Your task to perform on an android device: turn on javascript in the chrome app Image 0: 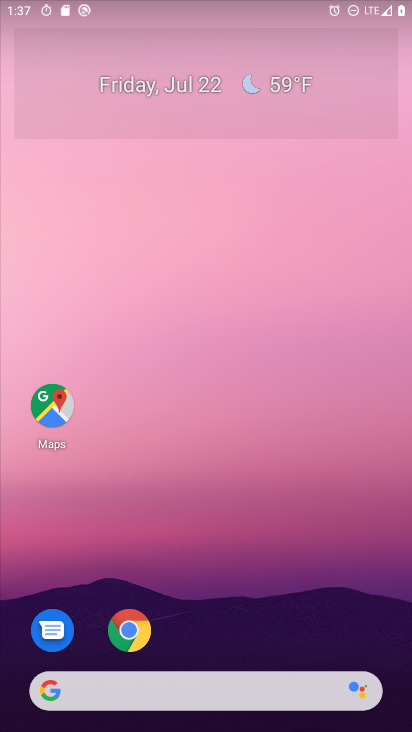
Step 0: press home button
Your task to perform on an android device: turn on javascript in the chrome app Image 1: 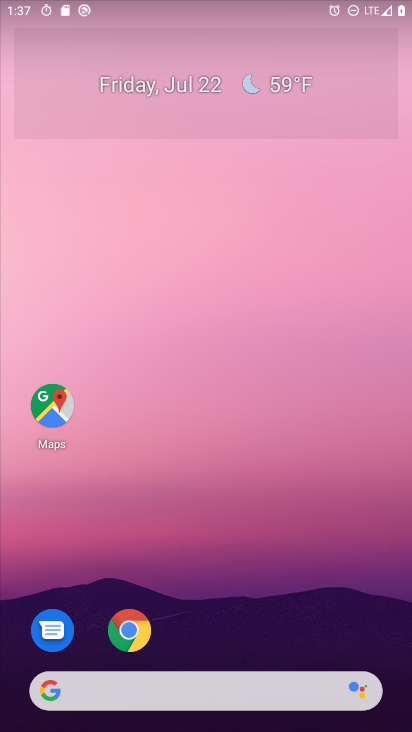
Step 1: drag from (230, 600) to (245, 13)
Your task to perform on an android device: turn on javascript in the chrome app Image 2: 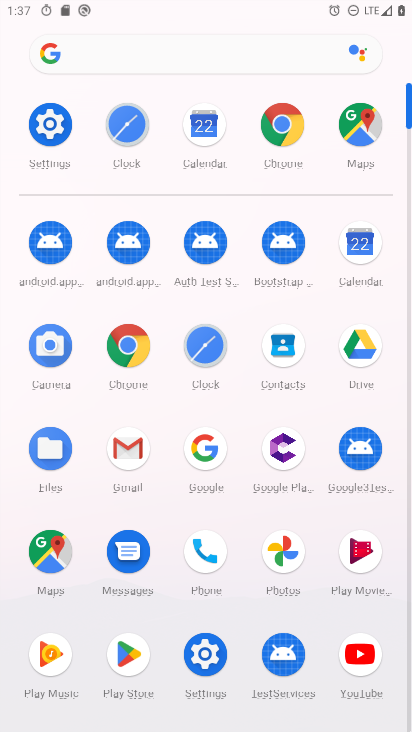
Step 2: click (288, 130)
Your task to perform on an android device: turn on javascript in the chrome app Image 3: 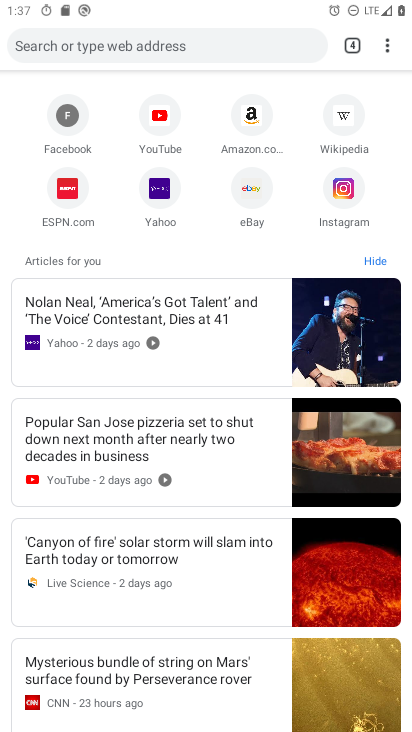
Step 3: drag from (391, 41) to (206, 431)
Your task to perform on an android device: turn on javascript in the chrome app Image 4: 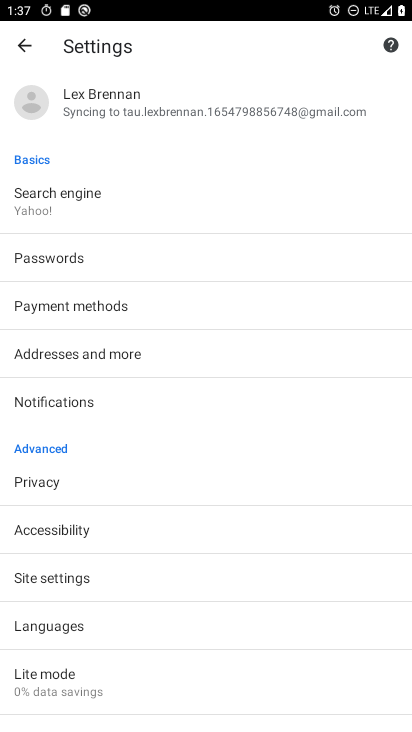
Step 4: click (51, 580)
Your task to perform on an android device: turn on javascript in the chrome app Image 5: 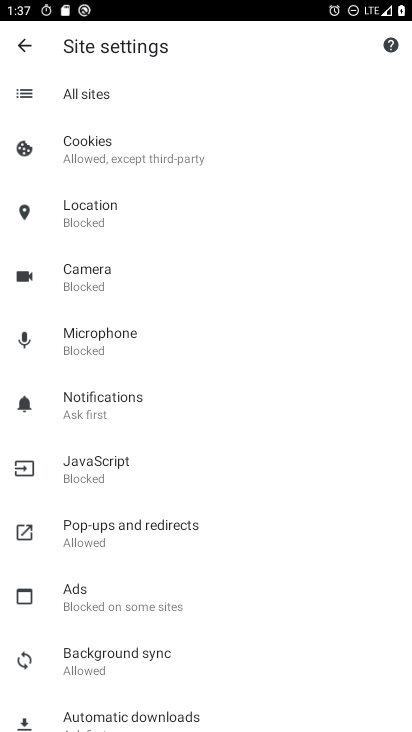
Step 5: click (86, 477)
Your task to perform on an android device: turn on javascript in the chrome app Image 6: 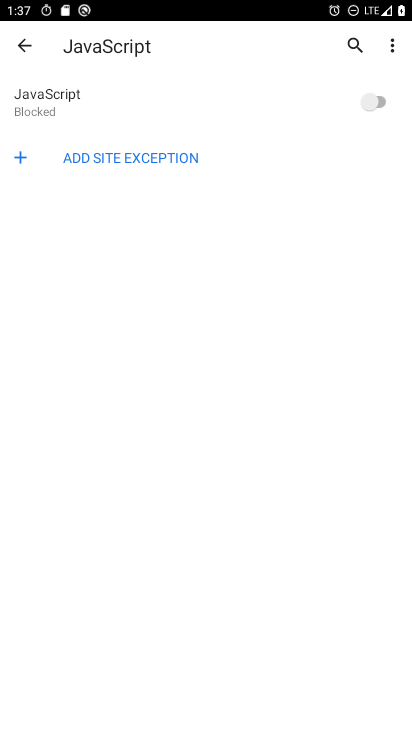
Step 6: click (378, 99)
Your task to perform on an android device: turn on javascript in the chrome app Image 7: 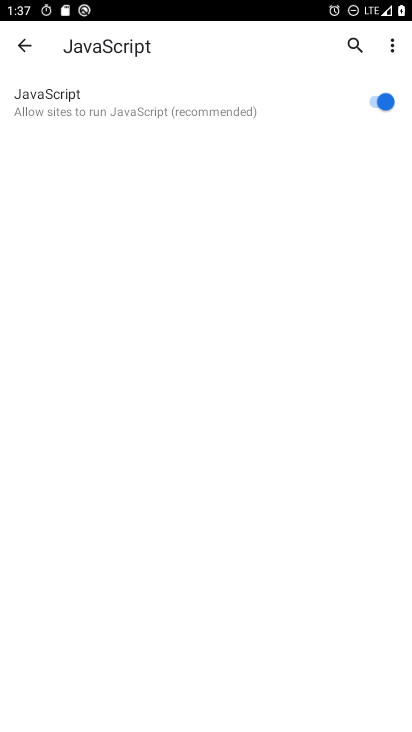
Step 7: task complete